Your task to perform on an android device: check android version Image 0: 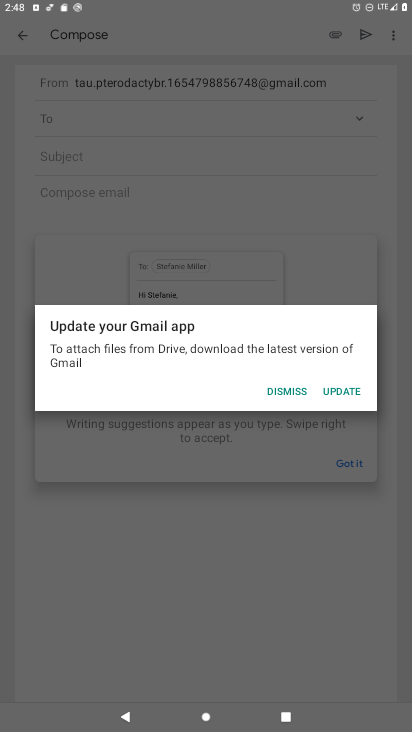
Step 0: press home button
Your task to perform on an android device: check android version Image 1: 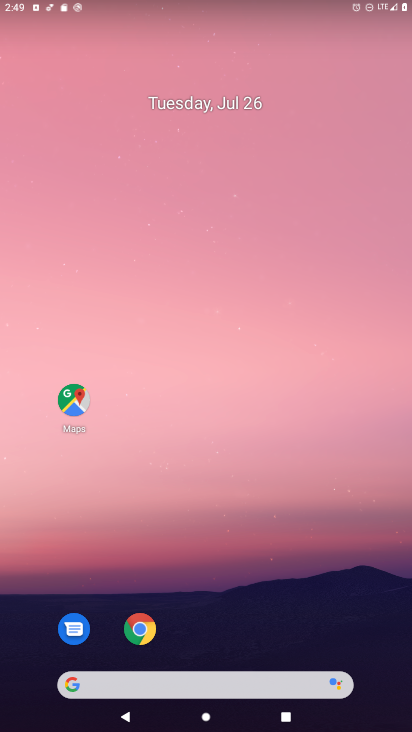
Step 1: drag from (383, 660) to (341, 102)
Your task to perform on an android device: check android version Image 2: 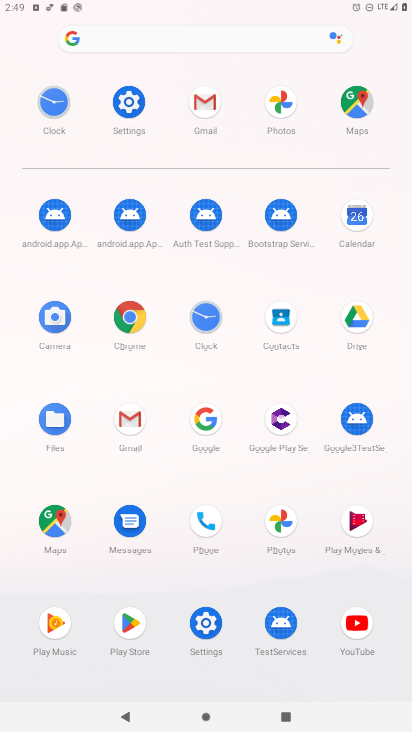
Step 2: click (205, 625)
Your task to perform on an android device: check android version Image 3: 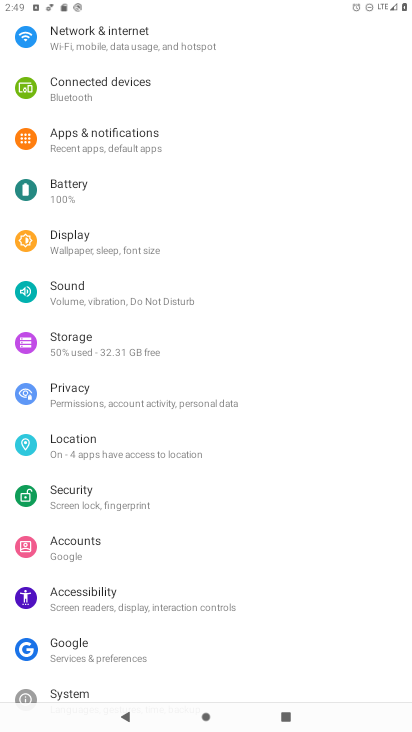
Step 3: drag from (288, 640) to (304, 241)
Your task to perform on an android device: check android version Image 4: 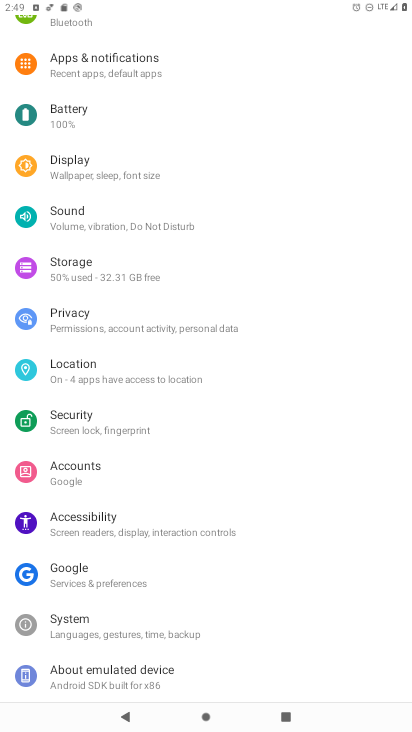
Step 4: click (107, 668)
Your task to perform on an android device: check android version Image 5: 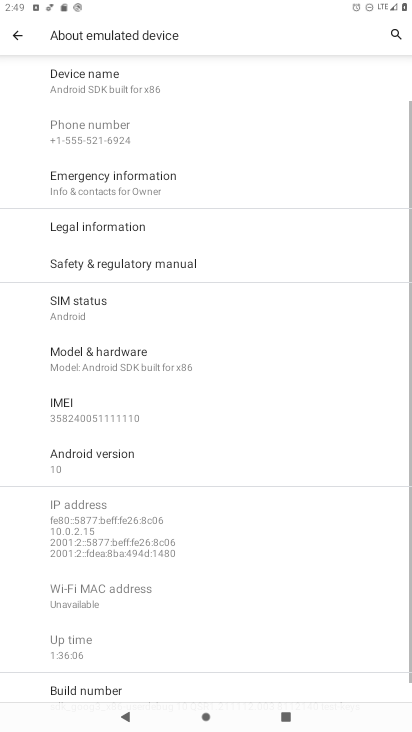
Step 5: click (90, 450)
Your task to perform on an android device: check android version Image 6: 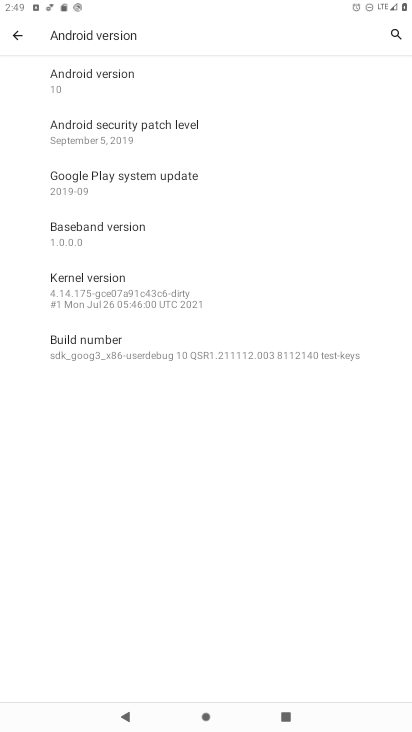
Step 6: click (83, 65)
Your task to perform on an android device: check android version Image 7: 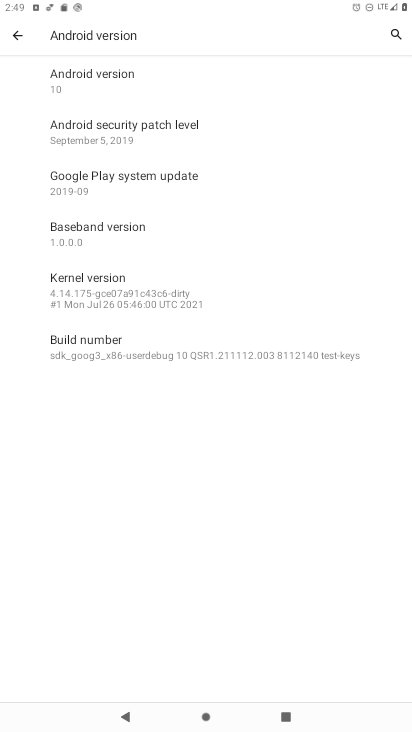
Step 7: task complete